Your task to perform on an android device: Open wifi settings Image 0: 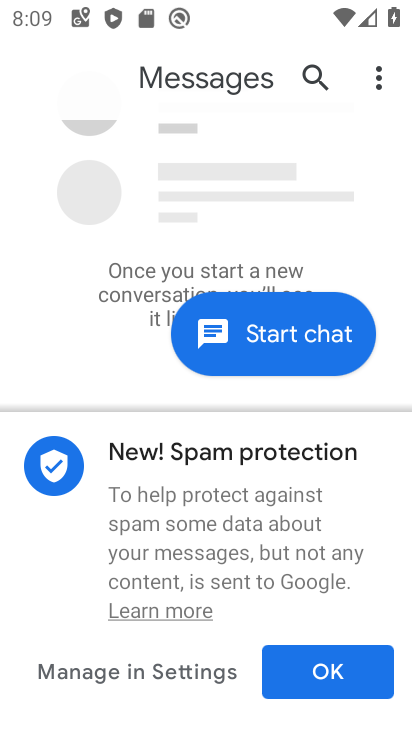
Step 0: press home button
Your task to perform on an android device: Open wifi settings Image 1: 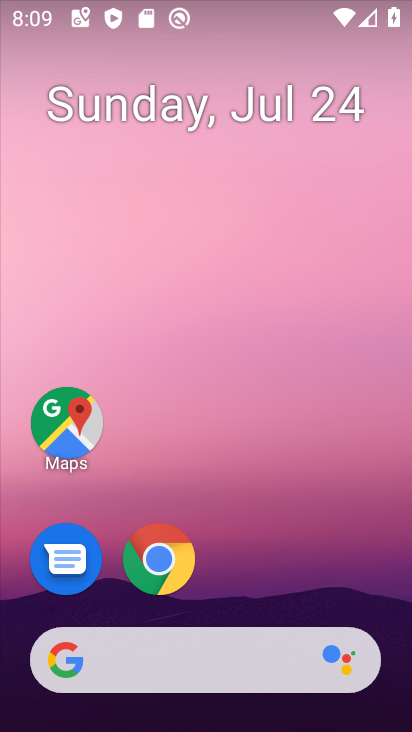
Step 1: drag from (376, 524) to (342, 109)
Your task to perform on an android device: Open wifi settings Image 2: 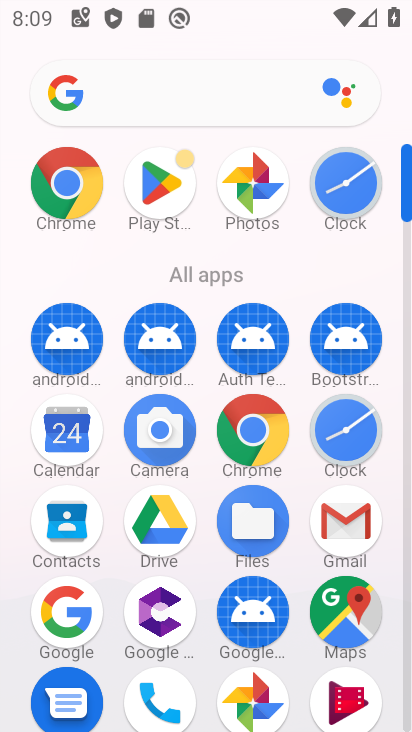
Step 2: drag from (400, 474) to (401, 210)
Your task to perform on an android device: Open wifi settings Image 3: 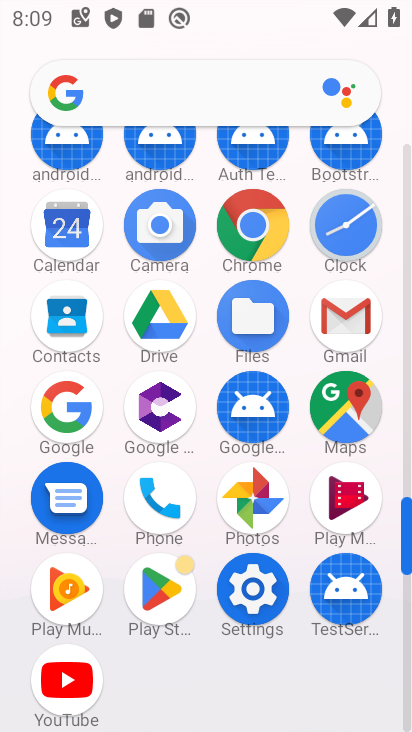
Step 3: click (247, 594)
Your task to perform on an android device: Open wifi settings Image 4: 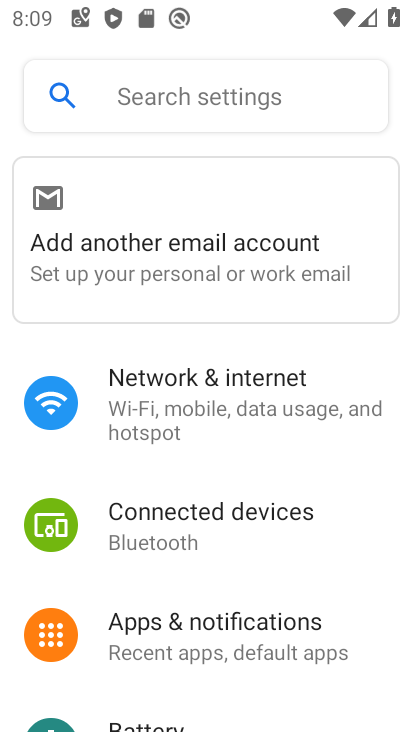
Step 4: drag from (356, 577) to (357, 493)
Your task to perform on an android device: Open wifi settings Image 5: 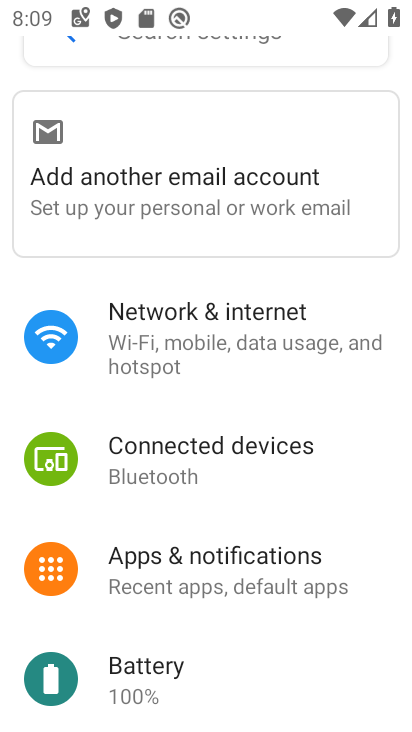
Step 5: drag from (378, 604) to (378, 492)
Your task to perform on an android device: Open wifi settings Image 6: 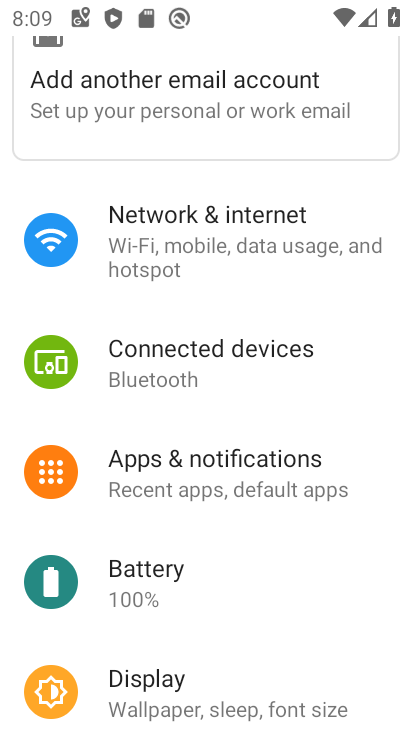
Step 6: drag from (358, 602) to (358, 507)
Your task to perform on an android device: Open wifi settings Image 7: 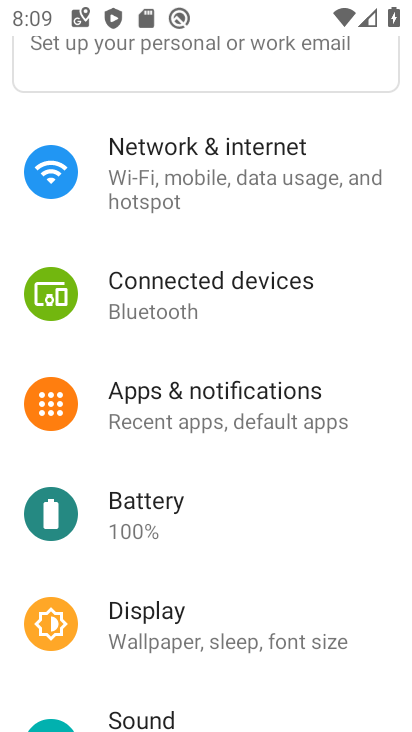
Step 7: drag from (367, 647) to (366, 513)
Your task to perform on an android device: Open wifi settings Image 8: 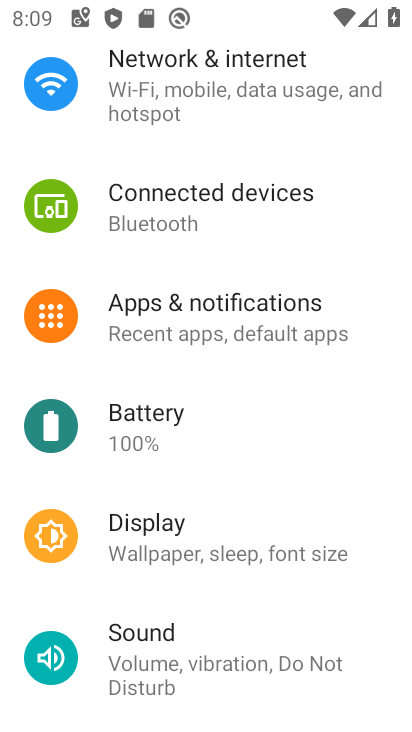
Step 8: drag from (373, 627) to (376, 522)
Your task to perform on an android device: Open wifi settings Image 9: 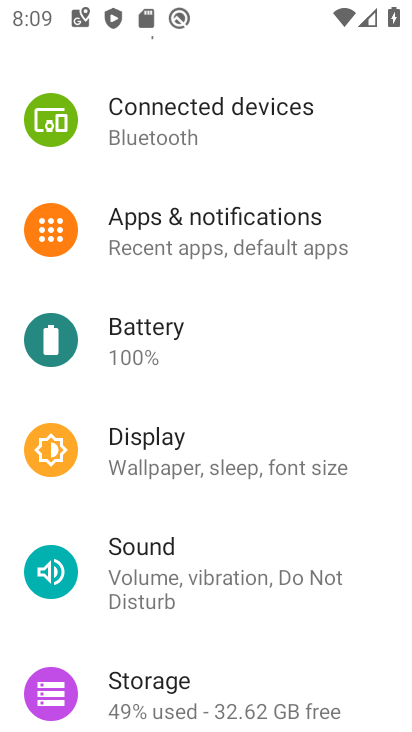
Step 9: drag from (363, 634) to (363, 501)
Your task to perform on an android device: Open wifi settings Image 10: 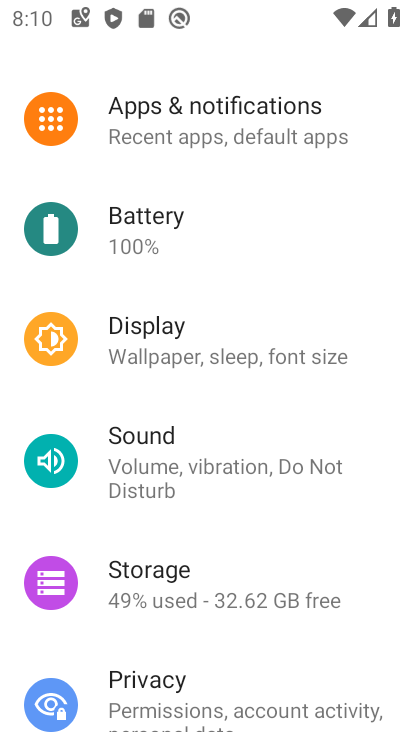
Step 10: drag from (361, 666) to (358, 500)
Your task to perform on an android device: Open wifi settings Image 11: 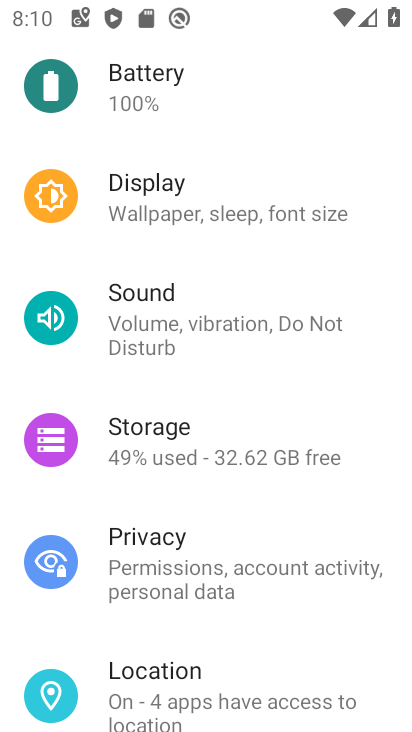
Step 11: drag from (361, 623) to (362, 465)
Your task to perform on an android device: Open wifi settings Image 12: 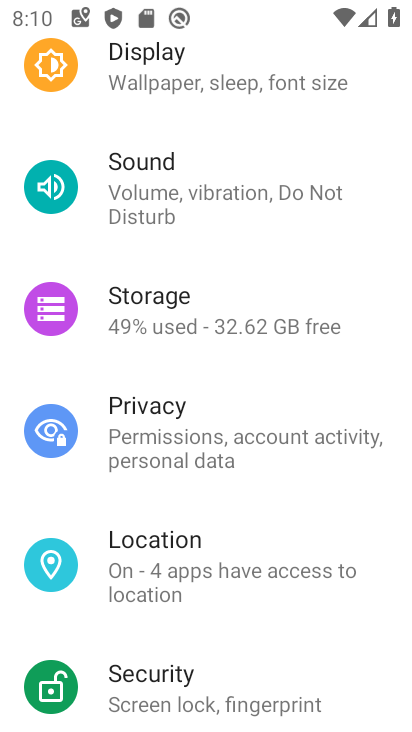
Step 12: drag from (352, 641) to (360, 504)
Your task to perform on an android device: Open wifi settings Image 13: 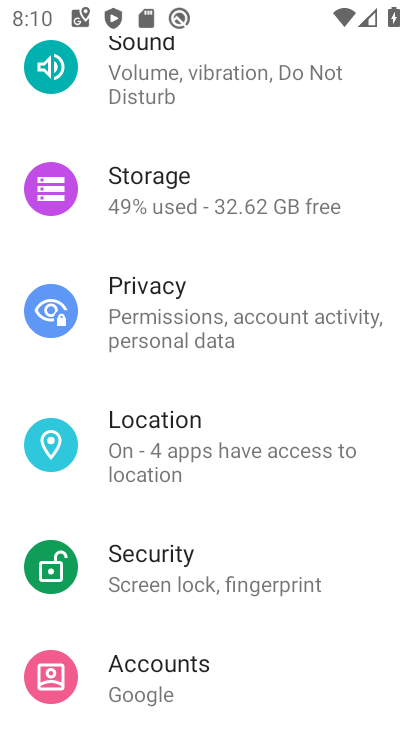
Step 13: drag from (358, 644) to (354, 403)
Your task to perform on an android device: Open wifi settings Image 14: 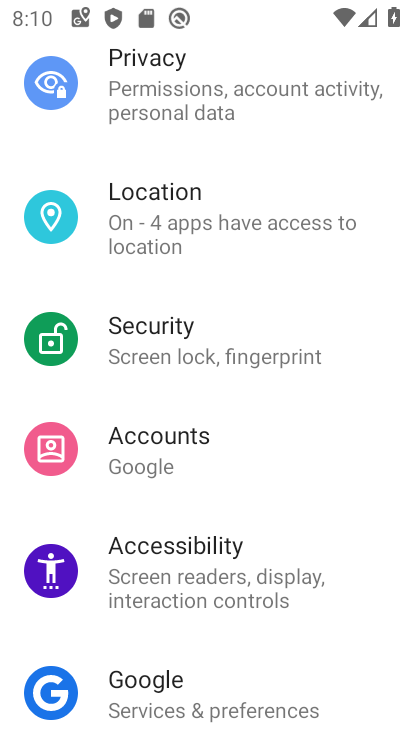
Step 14: drag from (365, 284) to (370, 366)
Your task to perform on an android device: Open wifi settings Image 15: 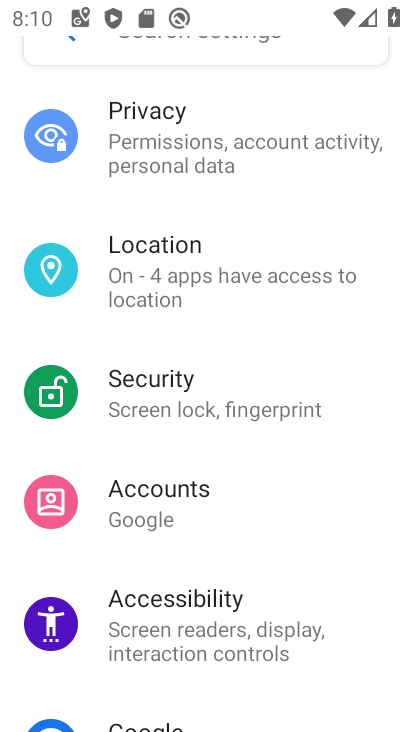
Step 15: drag from (374, 223) to (379, 332)
Your task to perform on an android device: Open wifi settings Image 16: 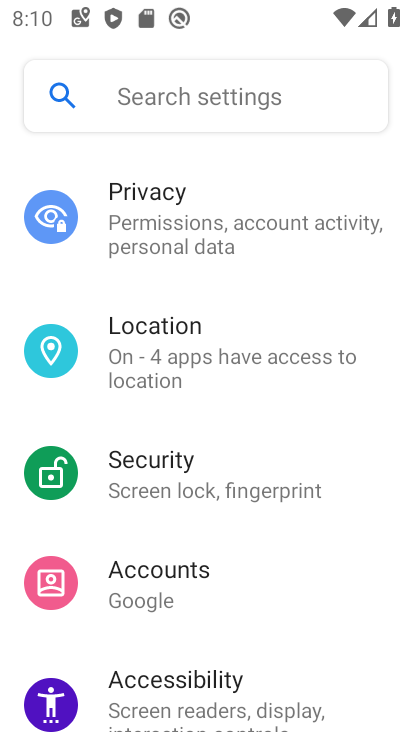
Step 16: drag from (387, 173) to (380, 335)
Your task to perform on an android device: Open wifi settings Image 17: 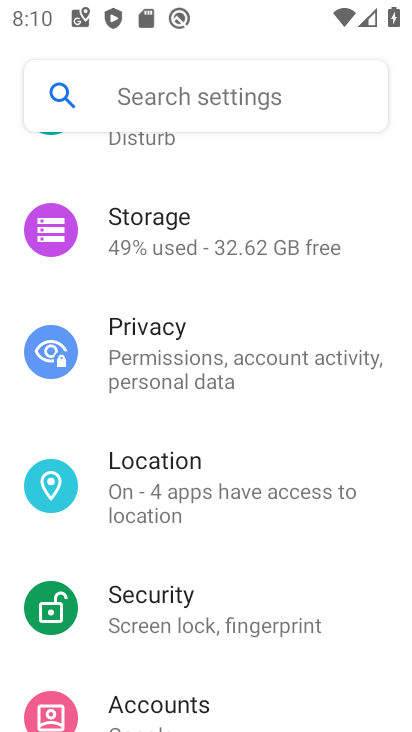
Step 17: drag from (373, 173) to (372, 358)
Your task to perform on an android device: Open wifi settings Image 18: 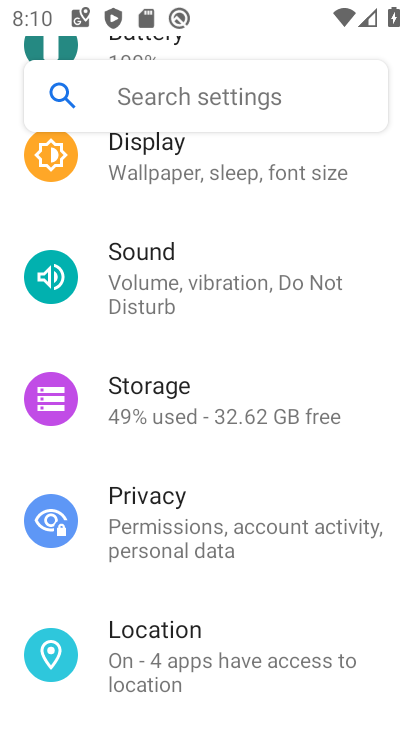
Step 18: drag from (379, 167) to (372, 386)
Your task to perform on an android device: Open wifi settings Image 19: 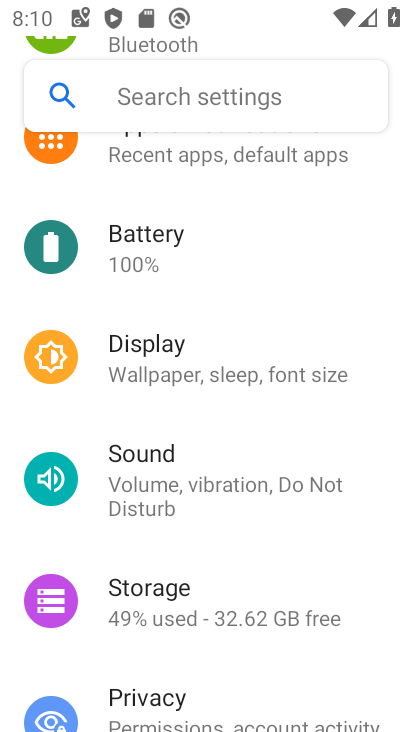
Step 19: drag from (366, 157) to (362, 400)
Your task to perform on an android device: Open wifi settings Image 20: 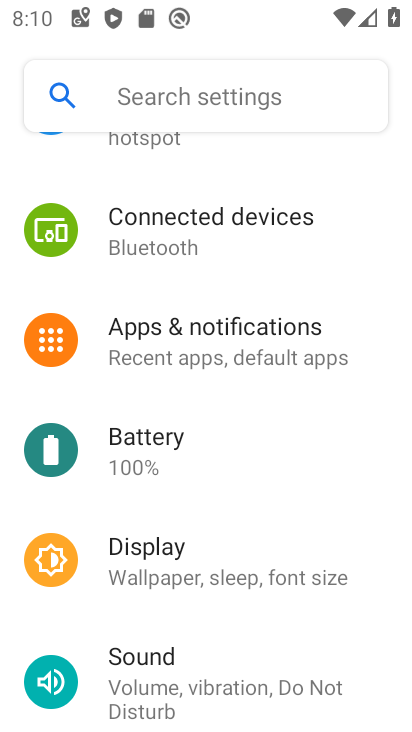
Step 20: drag from (348, 206) to (353, 375)
Your task to perform on an android device: Open wifi settings Image 21: 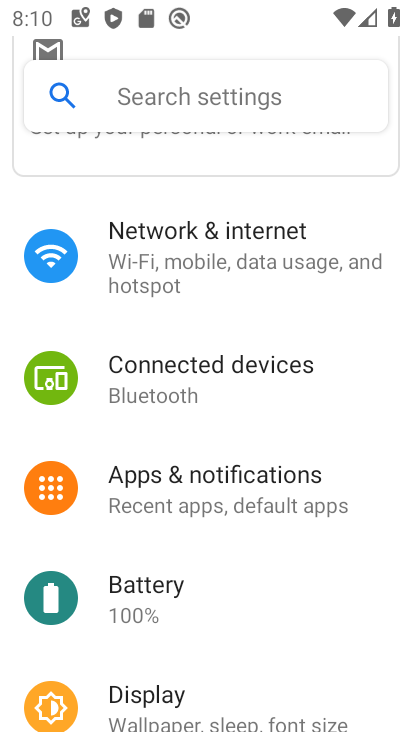
Step 21: click (316, 252)
Your task to perform on an android device: Open wifi settings Image 22: 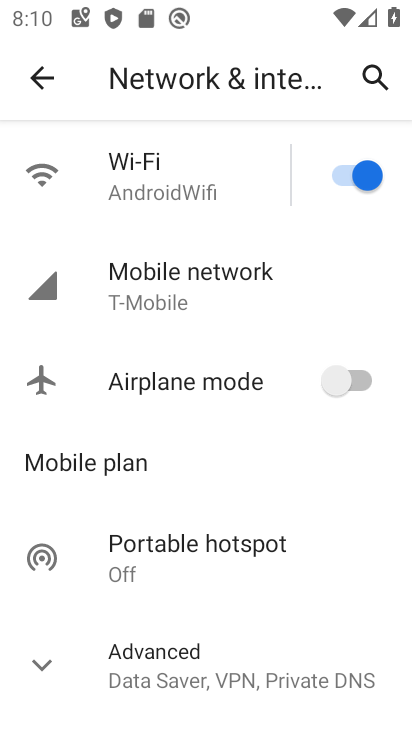
Step 22: click (179, 189)
Your task to perform on an android device: Open wifi settings Image 23: 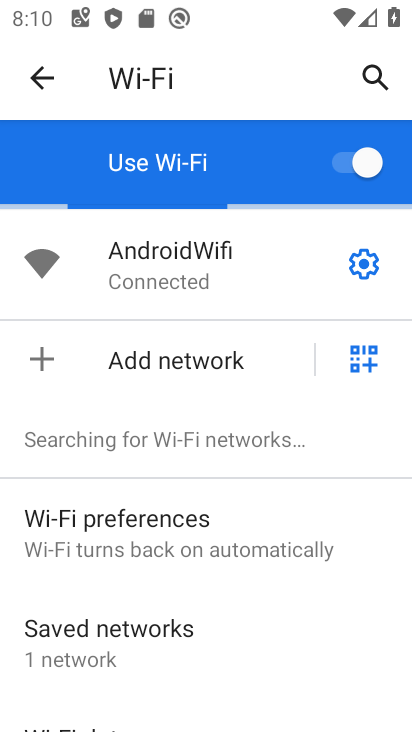
Step 23: task complete